Your task to perform on an android device: create a new album in the google photos Image 0: 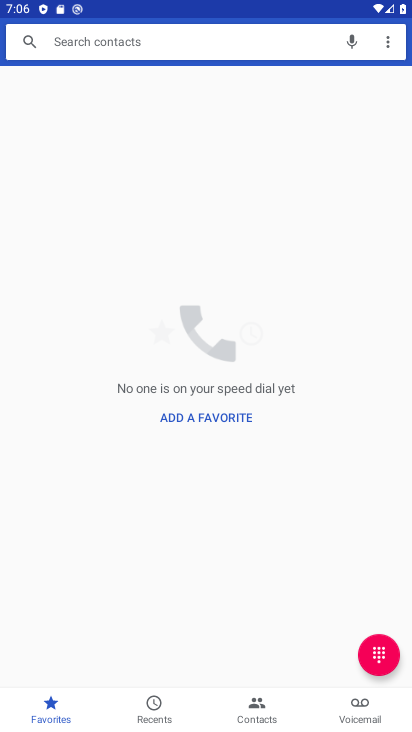
Step 0: press home button
Your task to perform on an android device: create a new album in the google photos Image 1: 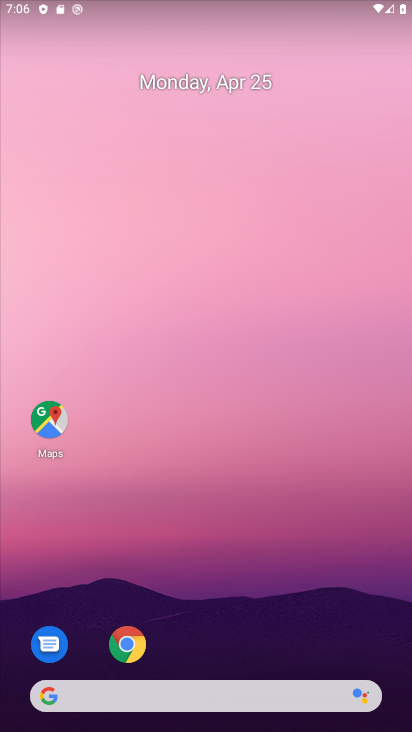
Step 1: drag from (225, 551) to (217, 133)
Your task to perform on an android device: create a new album in the google photos Image 2: 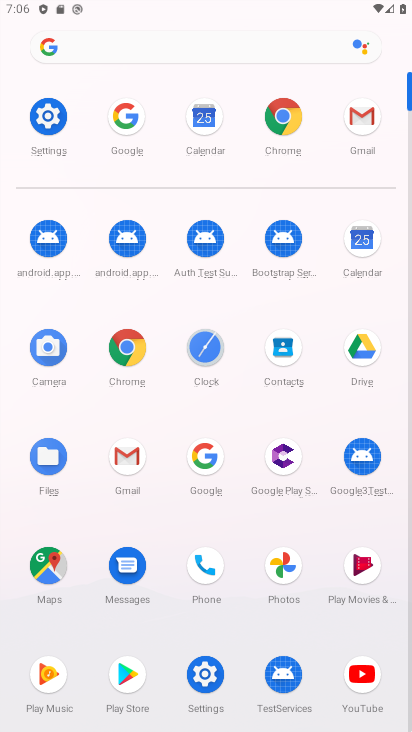
Step 2: click (289, 571)
Your task to perform on an android device: create a new album in the google photos Image 3: 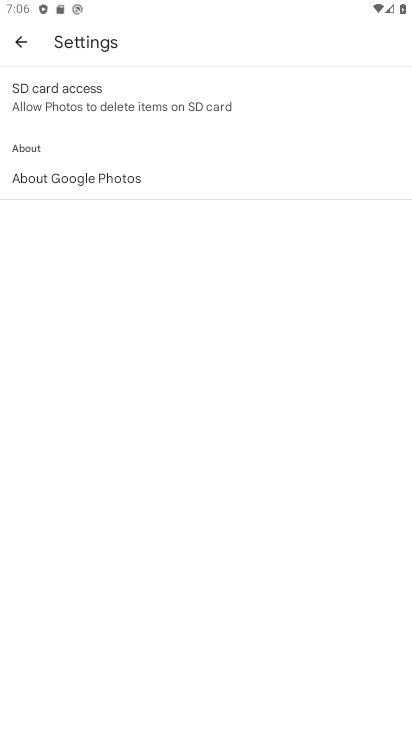
Step 3: click (14, 40)
Your task to perform on an android device: create a new album in the google photos Image 4: 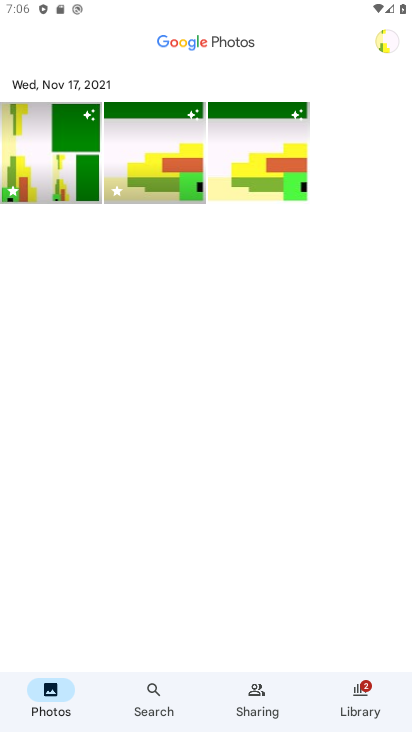
Step 4: click (154, 686)
Your task to perform on an android device: create a new album in the google photos Image 5: 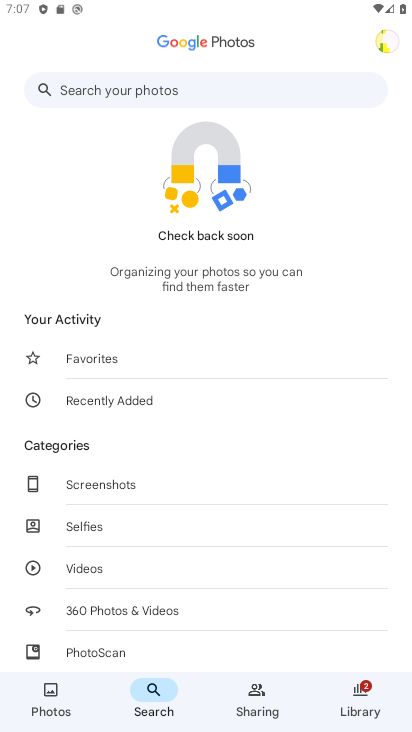
Step 5: click (357, 699)
Your task to perform on an android device: create a new album in the google photos Image 6: 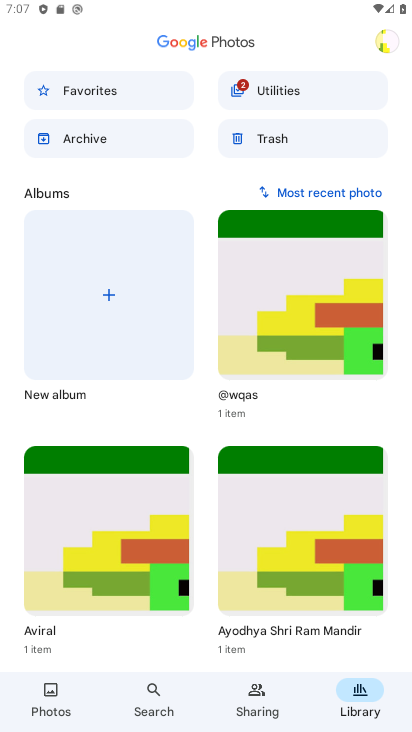
Step 6: click (107, 296)
Your task to perform on an android device: create a new album in the google photos Image 7: 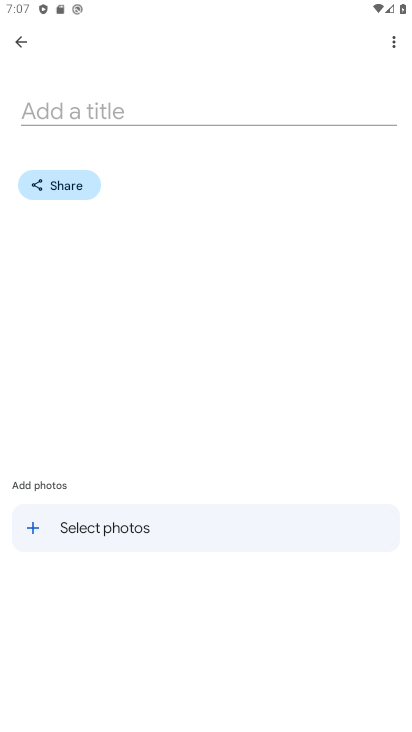
Step 7: click (88, 111)
Your task to perform on an android device: create a new album in the google photos Image 8: 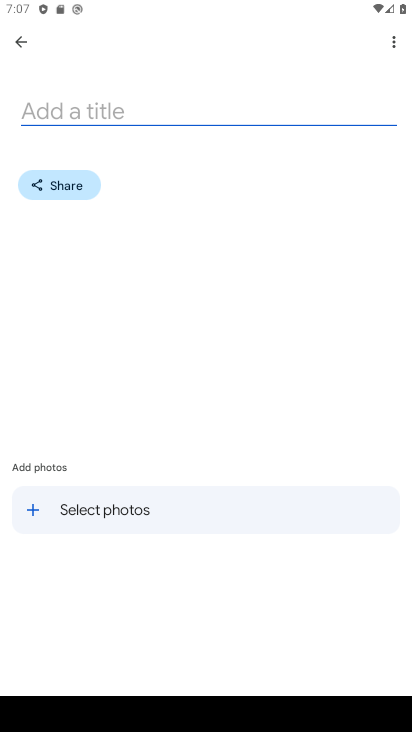
Step 8: type "efghjhge"
Your task to perform on an android device: create a new album in the google photos Image 9: 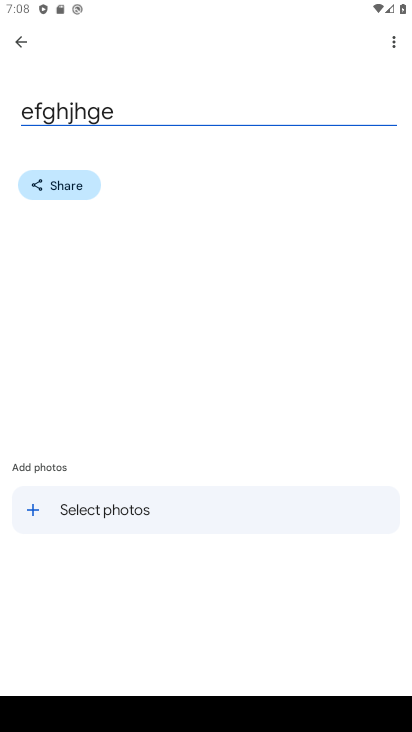
Step 9: click (36, 506)
Your task to perform on an android device: create a new album in the google photos Image 10: 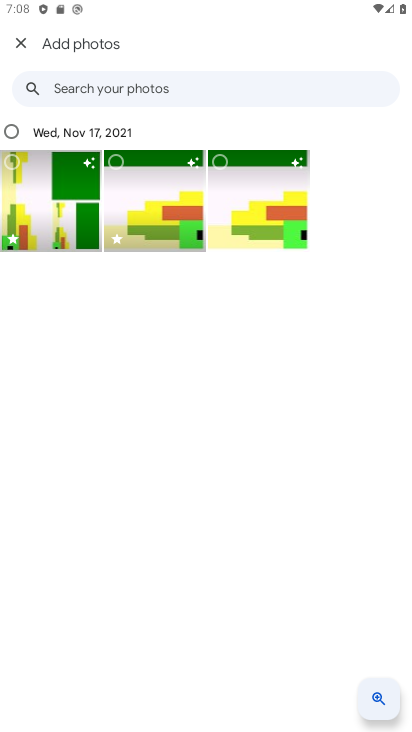
Step 10: click (116, 168)
Your task to perform on an android device: create a new album in the google photos Image 11: 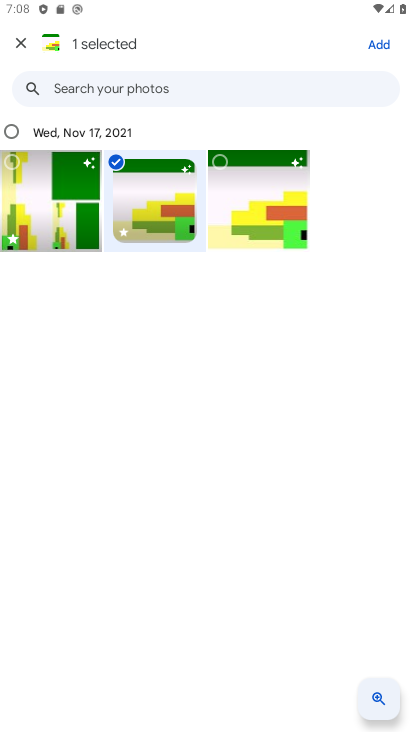
Step 11: click (224, 161)
Your task to perform on an android device: create a new album in the google photos Image 12: 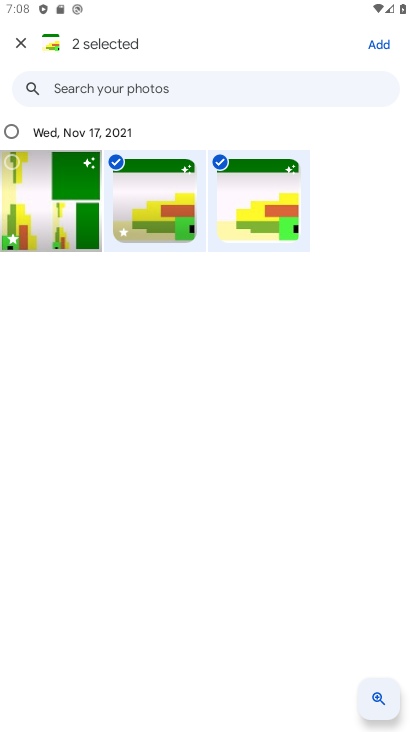
Step 12: click (381, 40)
Your task to perform on an android device: create a new album in the google photos Image 13: 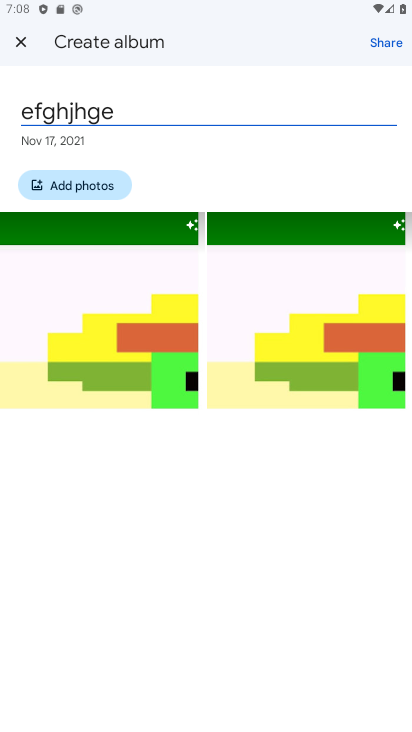
Step 13: task complete